Your task to perform on an android device: Go to accessibility settings Image 0: 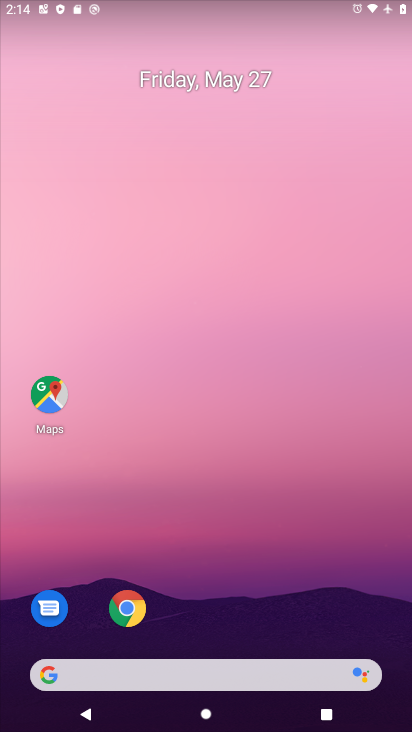
Step 0: press home button
Your task to perform on an android device: Go to accessibility settings Image 1: 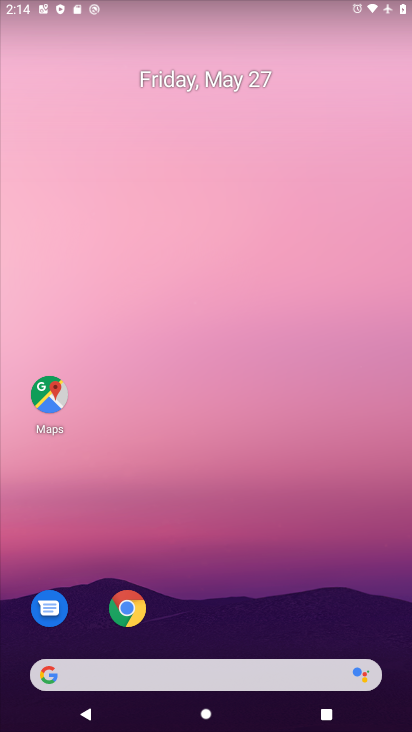
Step 1: drag from (150, 667) to (236, 111)
Your task to perform on an android device: Go to accessibility settings Image 2: 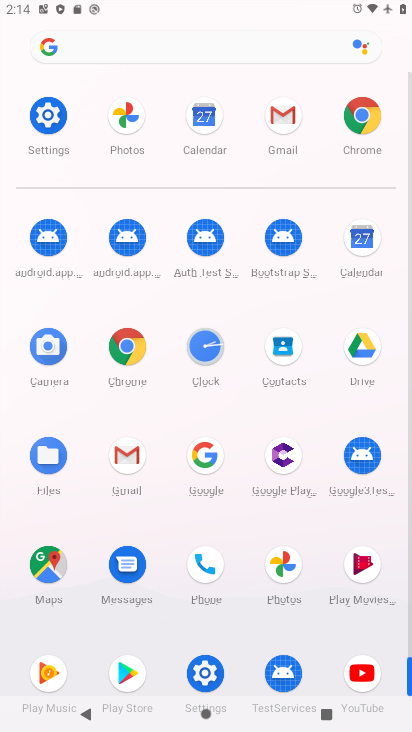
Step 2: click (44, 121)
Your task to perform on an android device: Go to accessibility settings Image 3: 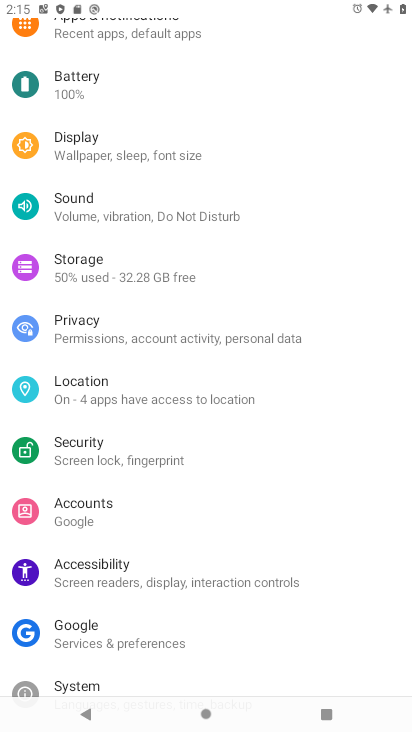
Step 3: click (99, 563)
Your task to perform on an android device: Go to accessibility settings Image 4: 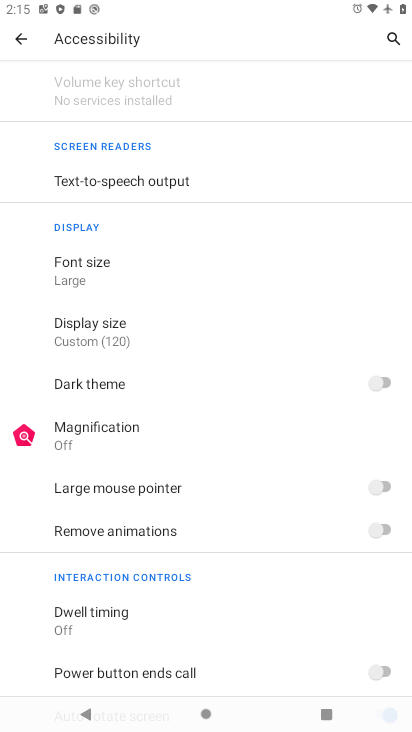
Step 4: task complete